Your task to perform on an android device: change the clock display to show seconds Image 0: 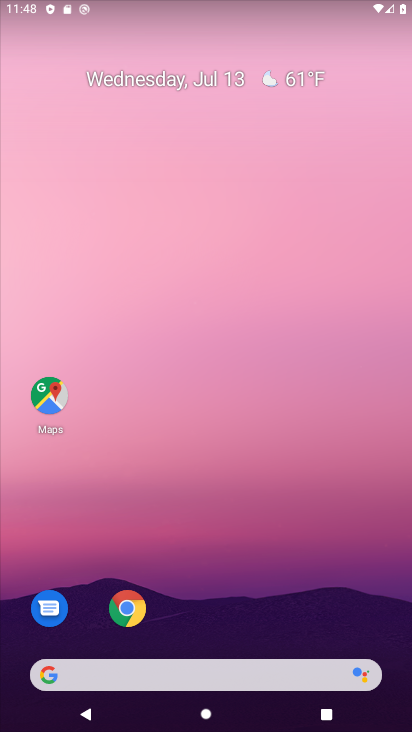
Step 0: drag from (141, 617) to (178, 39)
Your task to perform on an android device: change the clock display to show seconds Image 1: 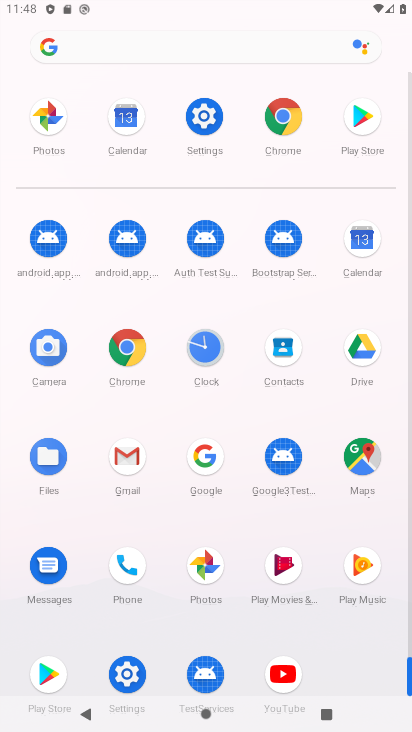
Step 1: click (218, 359)
Your task to perform on an android device: change the clock display to show seconds Image 2: 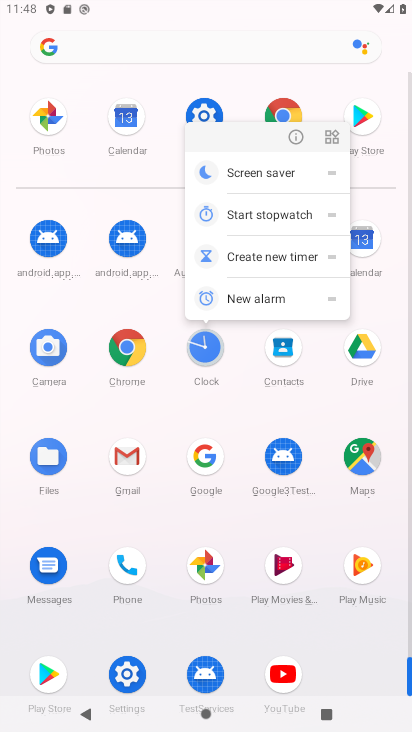
Step 2: click (294, 146)
Your task to perform on an android device: change the clock display to show seconds Image 3: 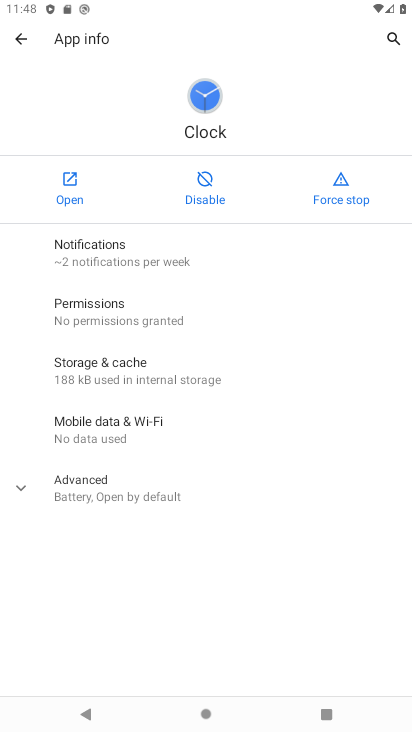
Step 3: click (76, 185)
Your task to perform on an android device: change the clock display to show seconds Image 4: 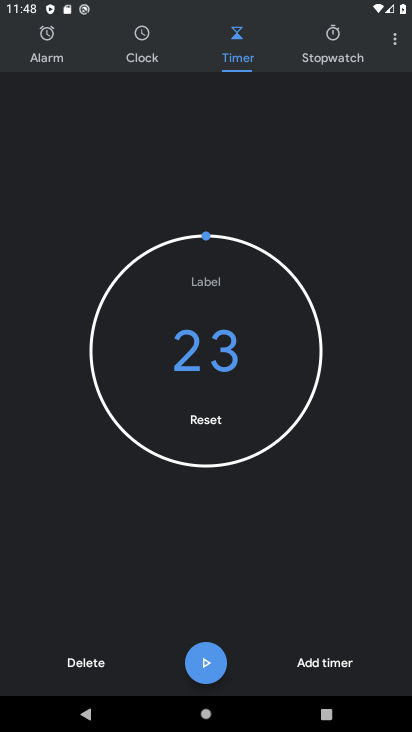
Step 4: drag from (228, 496) to (239, 374)
Your task to perform on an android device: change the clock display to show seconds Image 5: 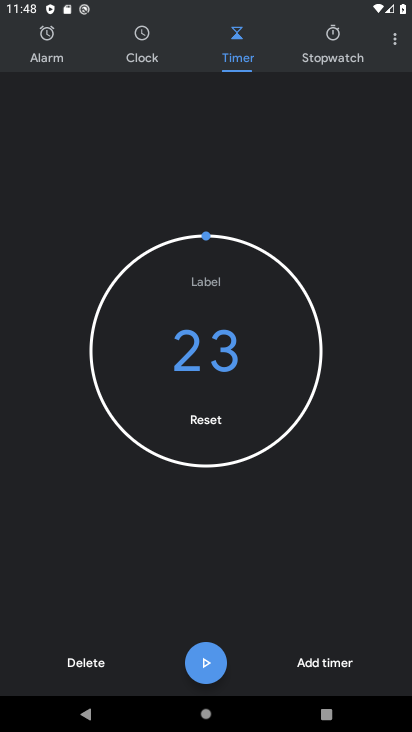
Step 5: click (390, 51)
Your task to perform on an android device: change the clock display to show seconds Image 6: 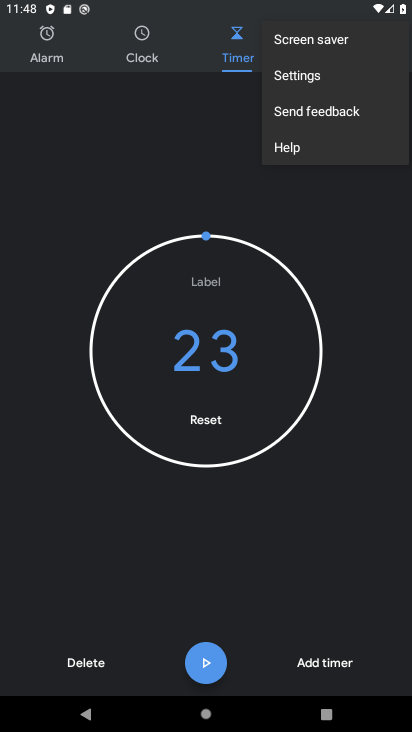
Step 6: click (322, 76)
Your task to perform on an android device: change the clock display to show seconds Image 7: 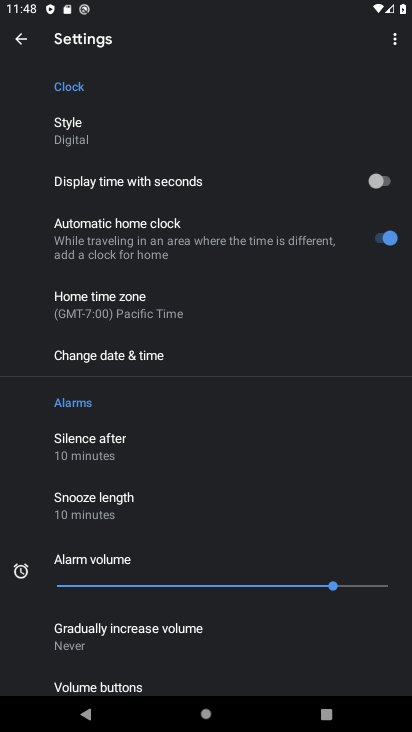
Step 7: click (382, 191)
Your task to perform on an android device: change the clock display to show seconds Image 8: 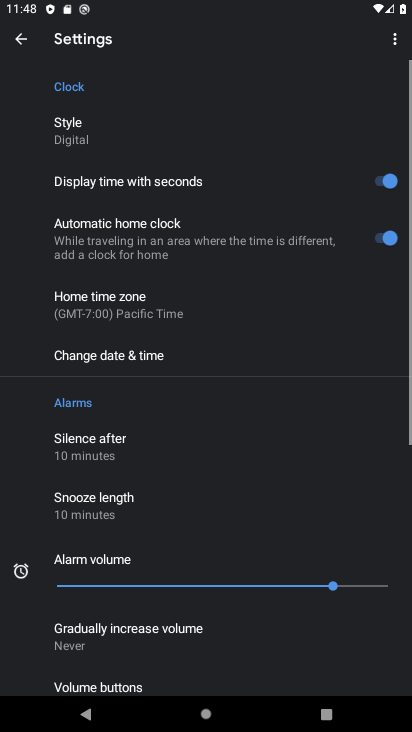
Step 8: task complete